Your task to perform on an android device: empty trash in google photos Image 0: 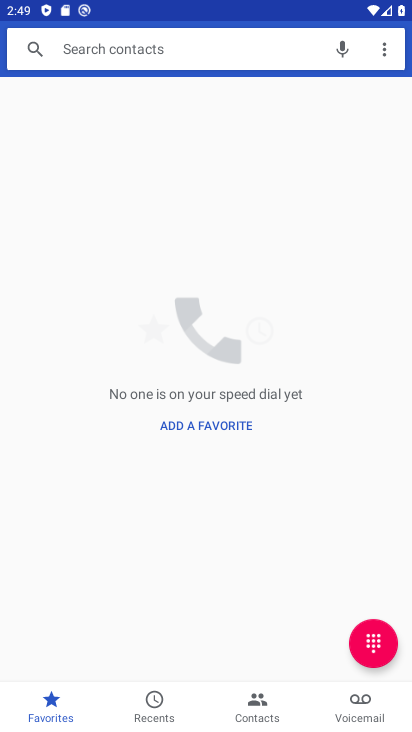
Step 0: press home button
Your task to perform on an android device: empty trash in google photos Image 1: 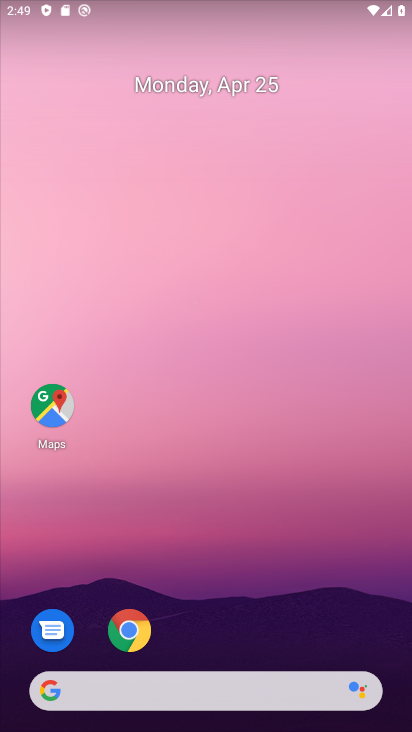
Step 1: drag from (269, 594) to (300, 20)
Your task to perform on an android device: empty trash in google photos Image 2: 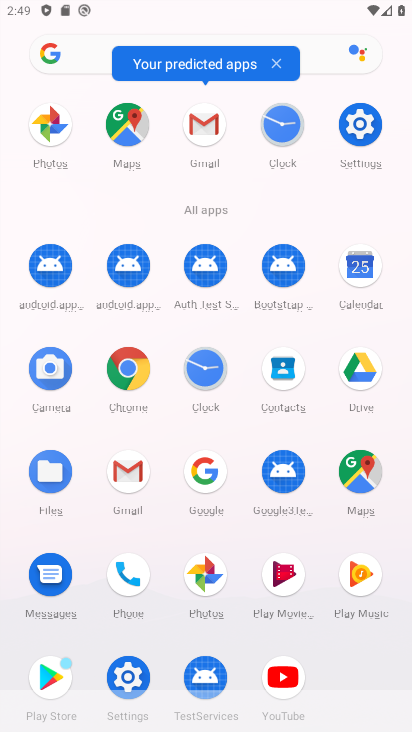
Step 2: click (53, 126)
Your task to perform on an android device: empty trash in google photos Image 3: 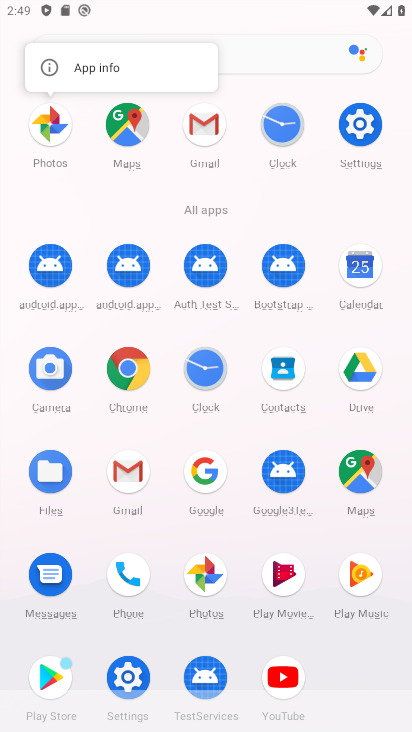
Step 3: click (53, 126)
Your task to perform on an android device: empty trash in google photos Image 4: 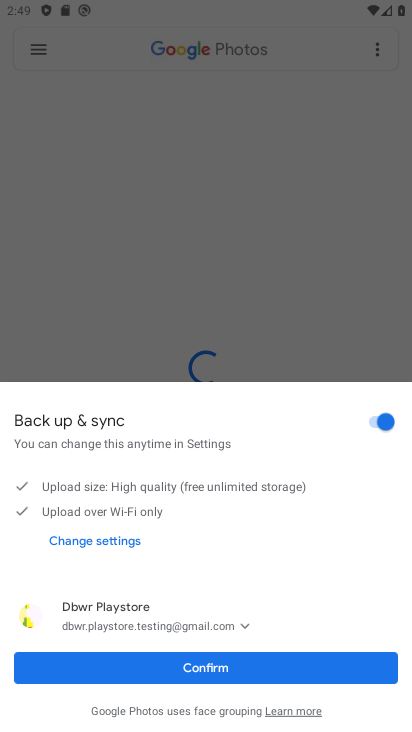
Step 4: click (262, 676)
Your task to perform on an android device: empty trash in google photos Image 5: 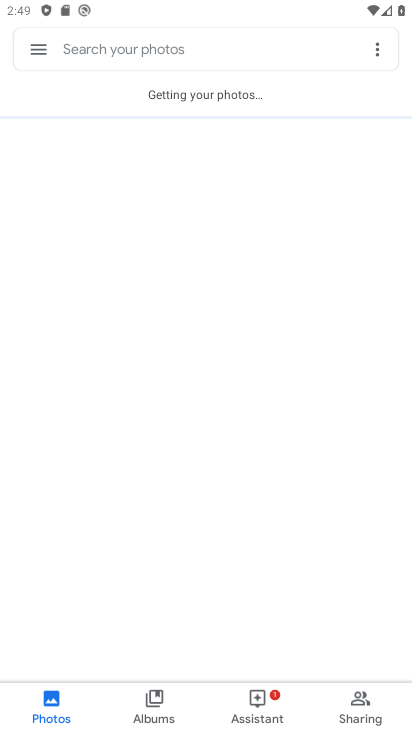
Step 5: click (34, 44)
Your task to perform on an android device: empty trash in google photos Image 6: 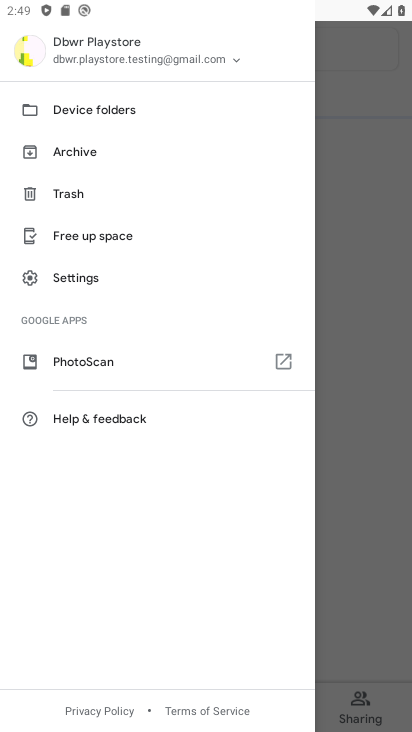
Step 6: click (117, 189)
Your task to perform on an android device: empty trash in google photos Image 7: 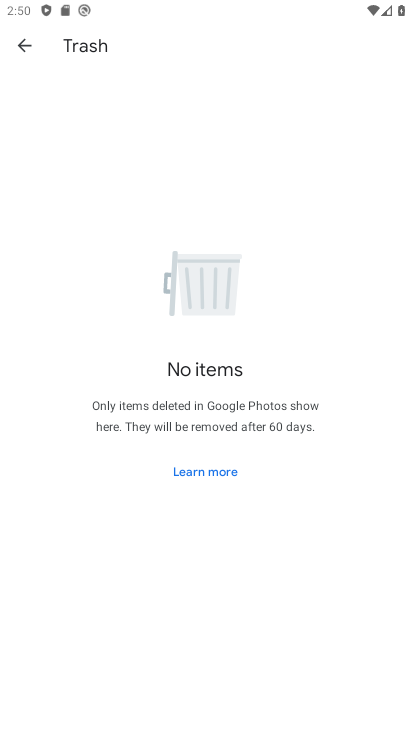
Step 7: task complete